Your task to perform on an android device: open sync settings in chrome Image 0: 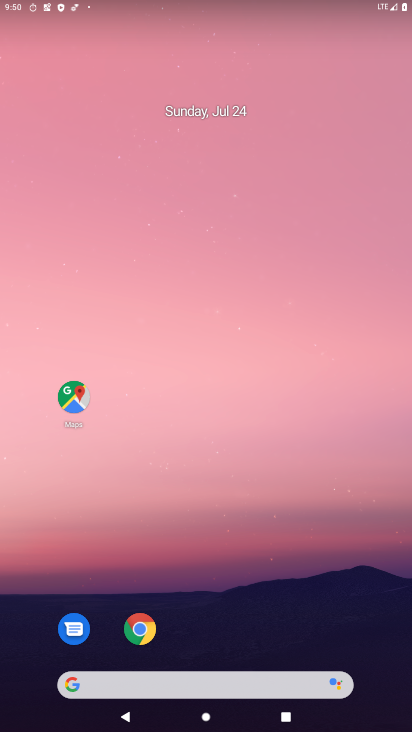
Step 0: press home button
Your task to perform on an android device: open sync settings in chrome Image 1: 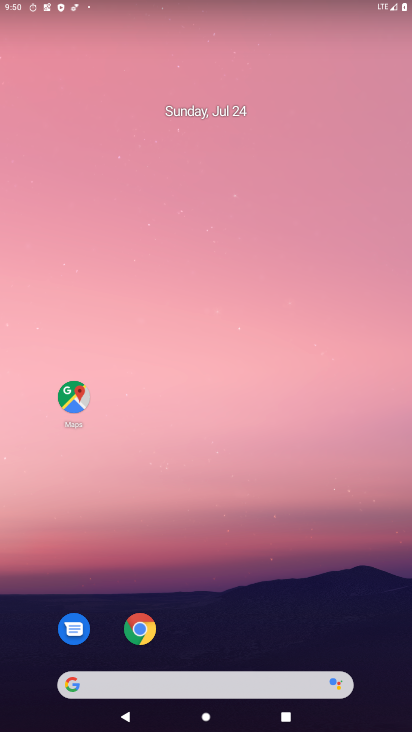
Step 1: click (144, 627)
Your task to perform on an android device: open sync settings in chrome Image 2: 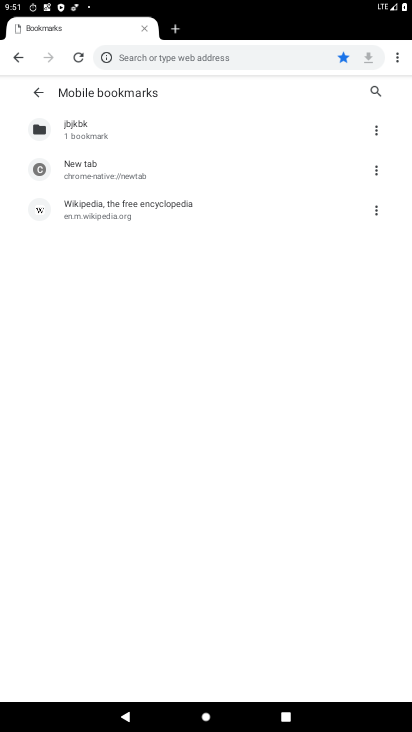
Step 2: drag from (393, 58) to (277, 262)
Your task to perform on an android device: open sync settings in chrome Image 3: 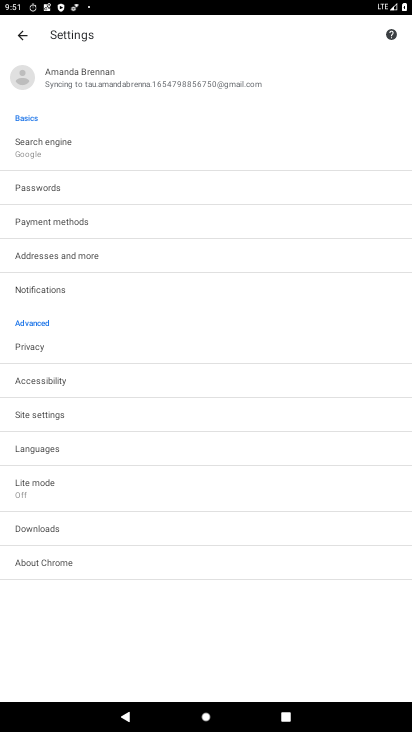
Step 3: click (36, 414)
Your task to perform on an android device: open sync settings in chrome Image 4: 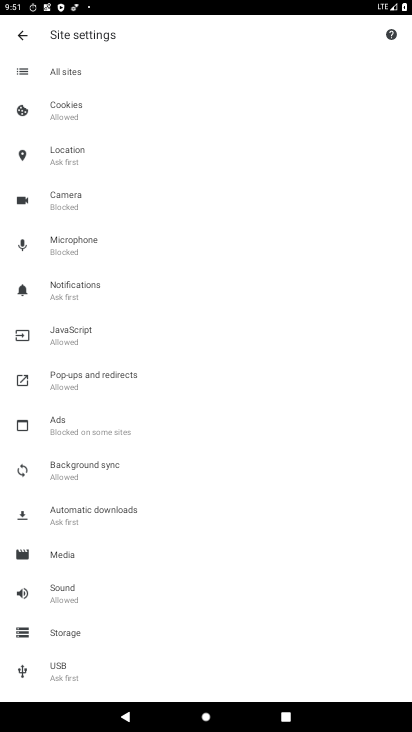
Step 4: click (86, 470)
Your task to perform on an android device: open sync settings in chrome Image 5: 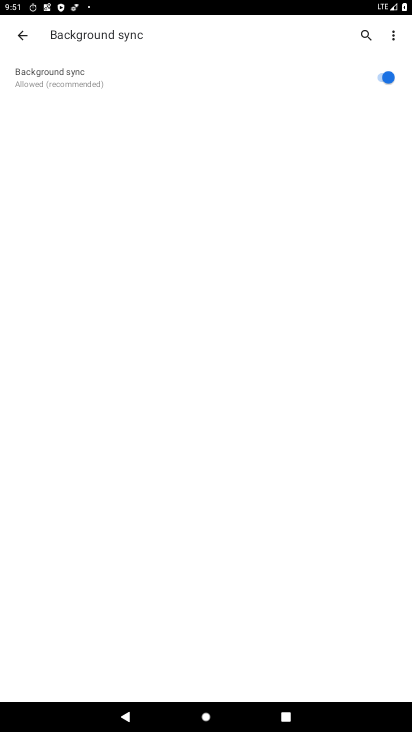
Step 5: task complete